Your task to perform on an android device: Clear all items from cart on target. Add "dell xps" to the cart on target, then select checkout. Image 0: 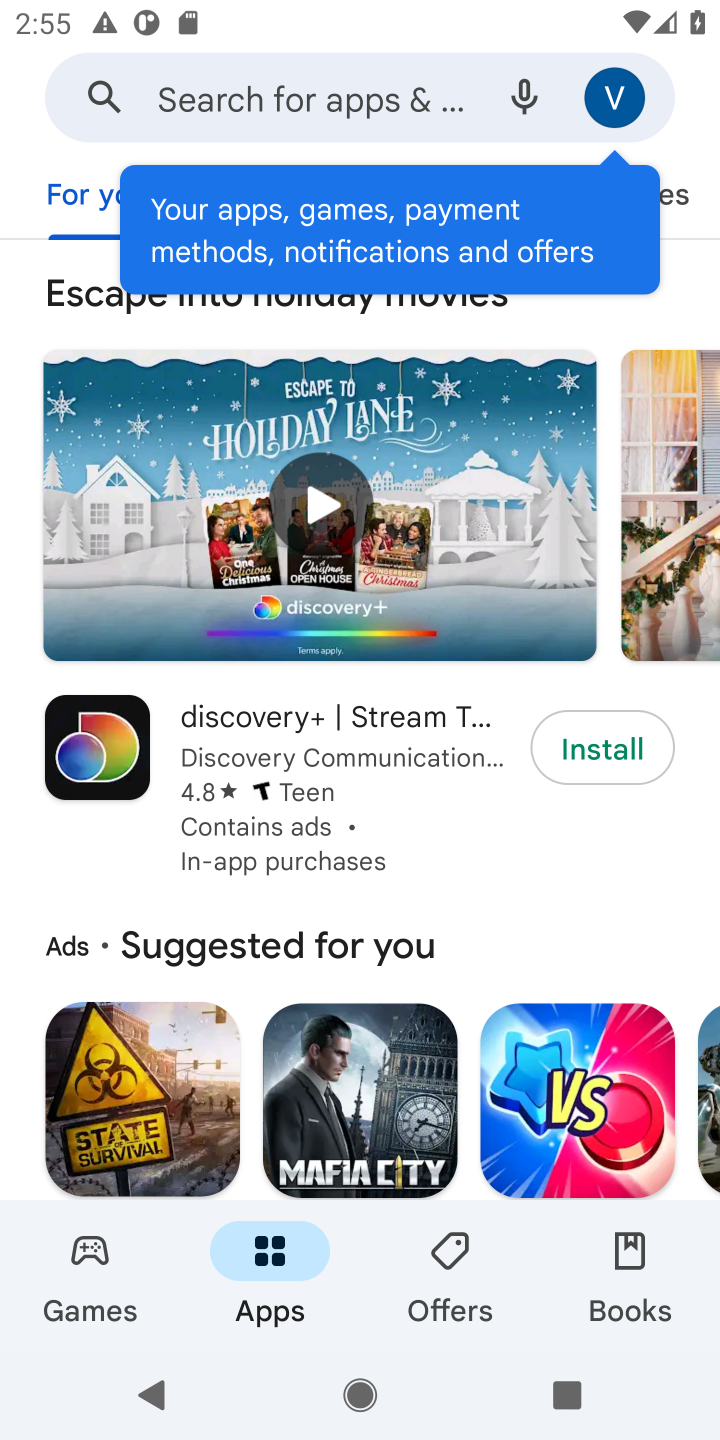
Step 0: press home button
Your task to perform on an android device: Clear all items from cart on target. Add "dell xps" to the cart on target, then select checkout. Image 1: 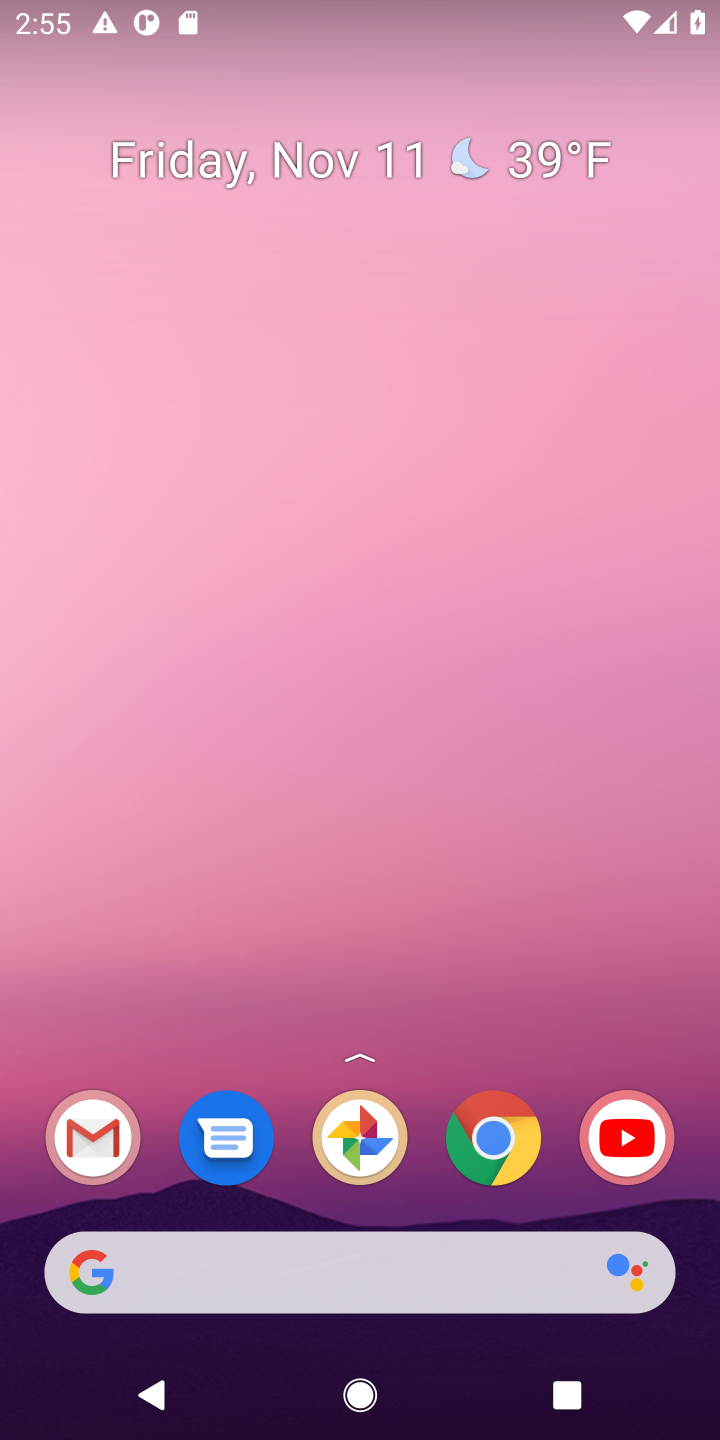
Step 1: click (500, 1146)
Your task to perform on an android device: Clear all items from cart on target. Add "dell xps" to the cart on target, then select checkout. Image 2: 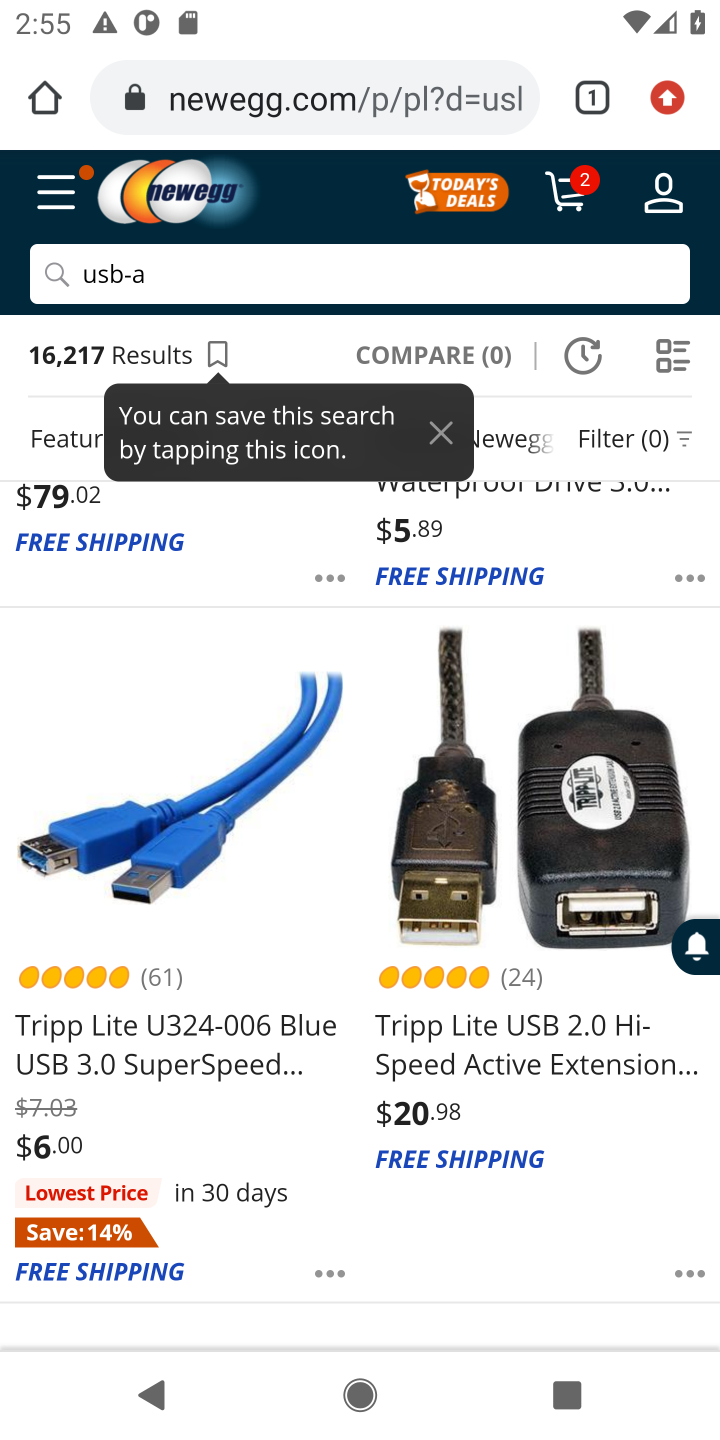
Step 2: click (345, 102)
Your task to perform on an android device: Clear all items from cart on target. Add "dell xps" to the cart on target, then select checkout. Image 3: 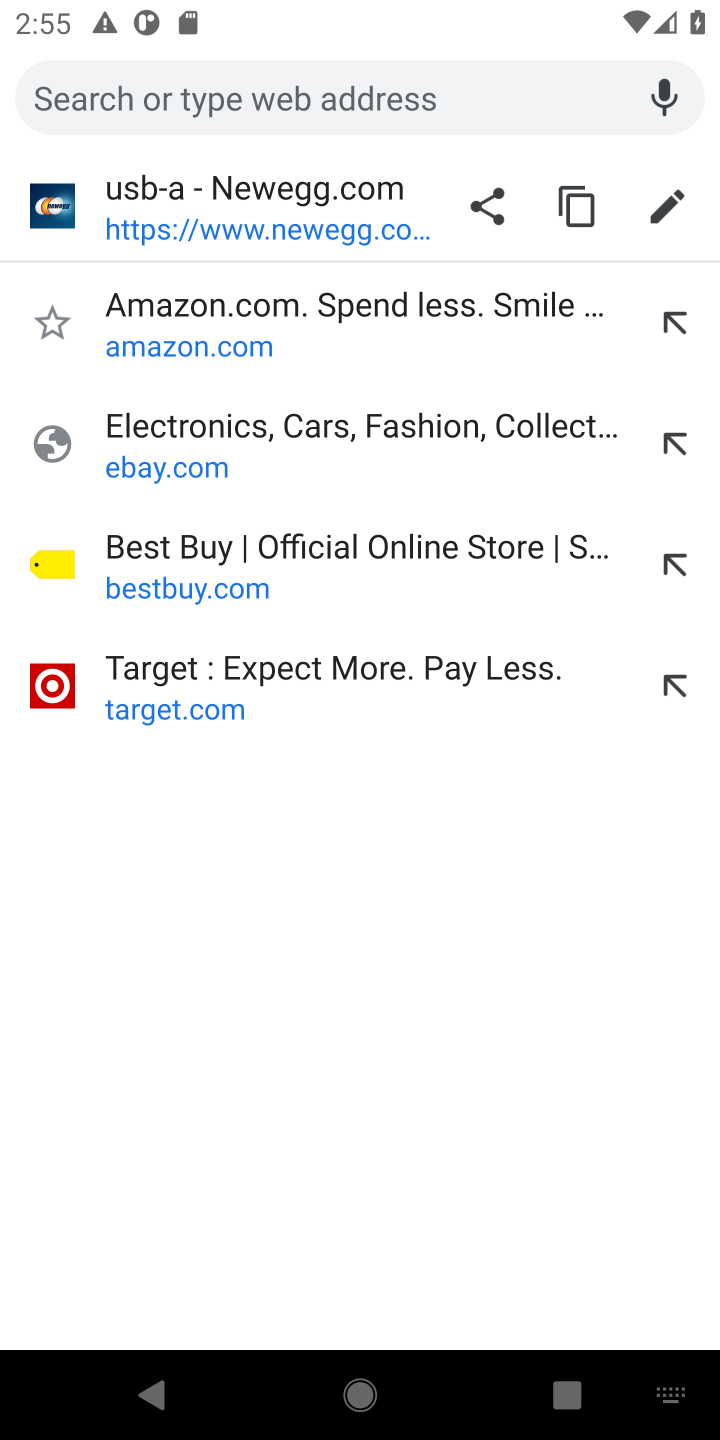
Step 3: click (319, 658)
Your task to perform on an android device: Clear all items from cart on target. Add "dell xps" to the cart on target, then select checkout. Image 4: 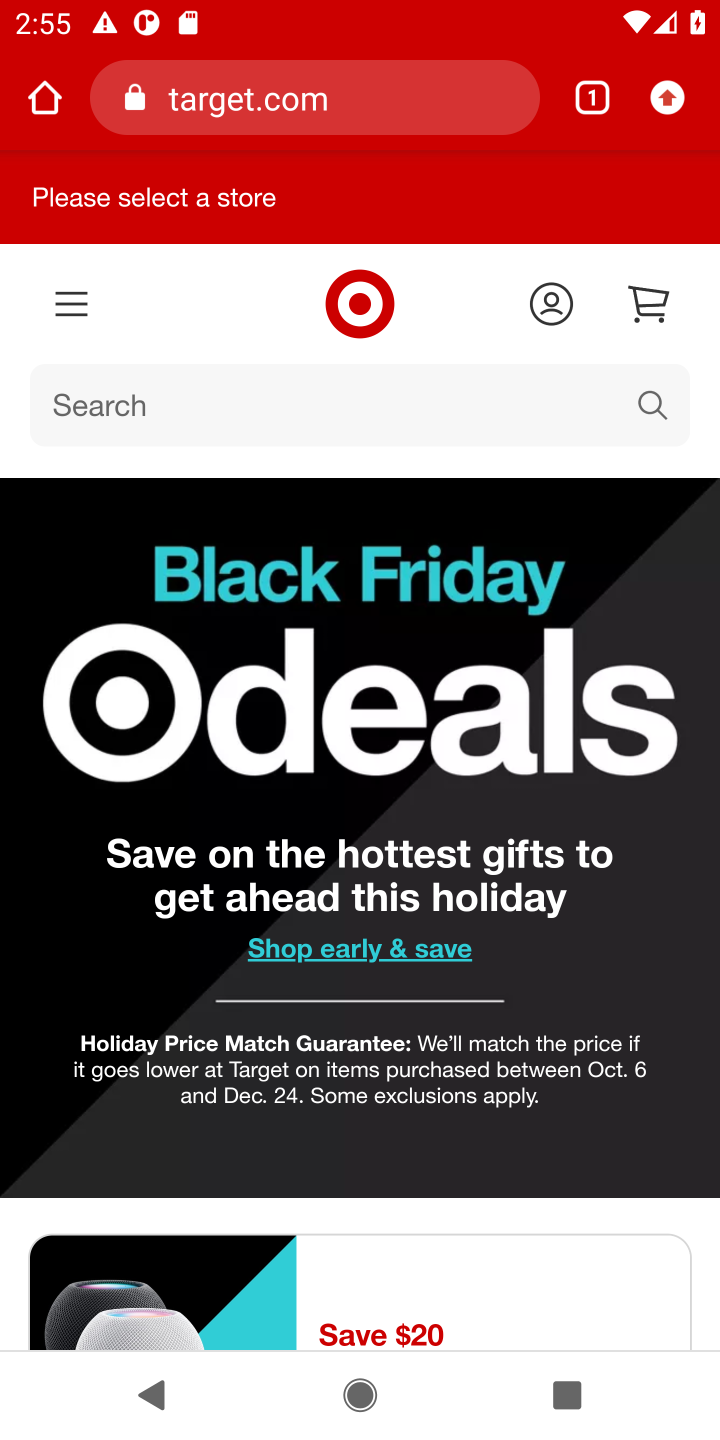
Step 4: click (653, 296)
Your task to perform on an android device: Clear all items from cart on target. Add "dell xps" to the cart on target, then select checkout. Image 5: 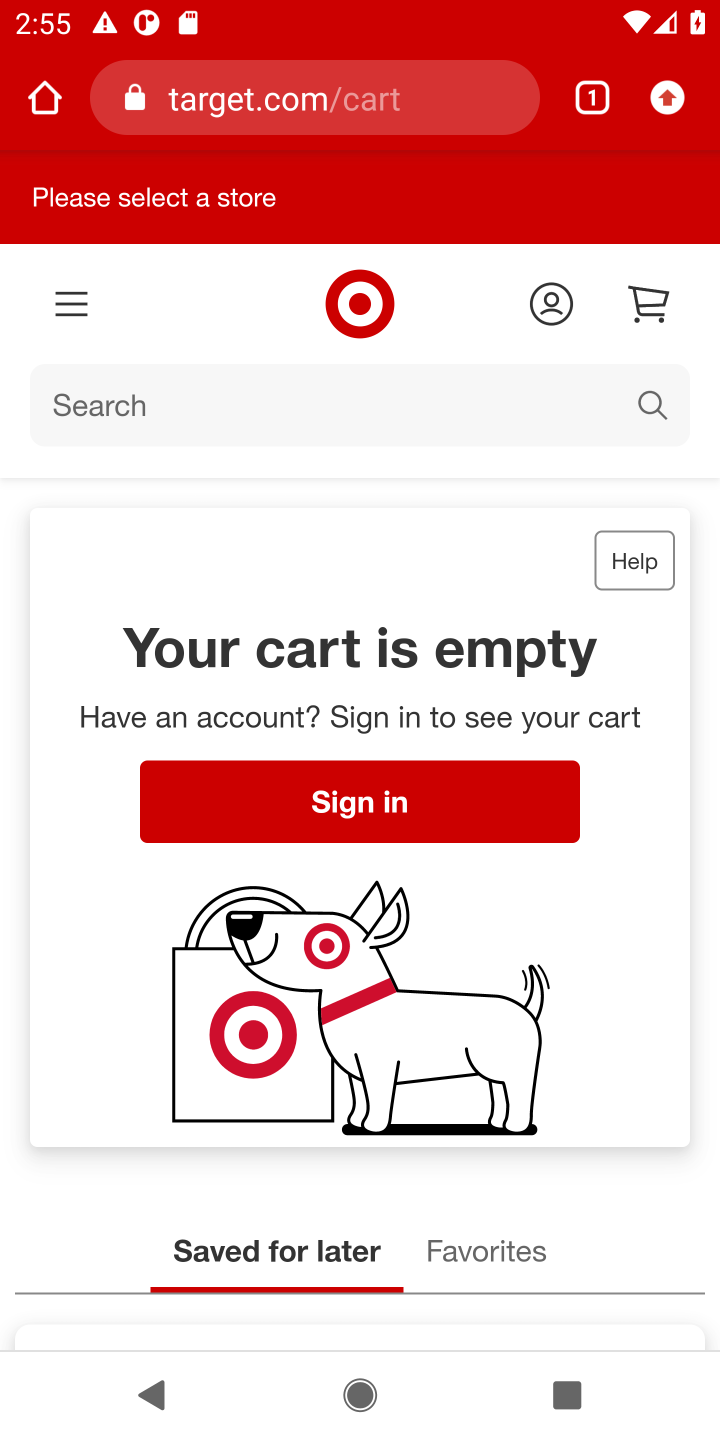
Step 5: click (633, 413)
Your task to perform on an android device: Clear all items from cart on target. Add "dell xps" to the cart on target, then select checkout. Image 6: 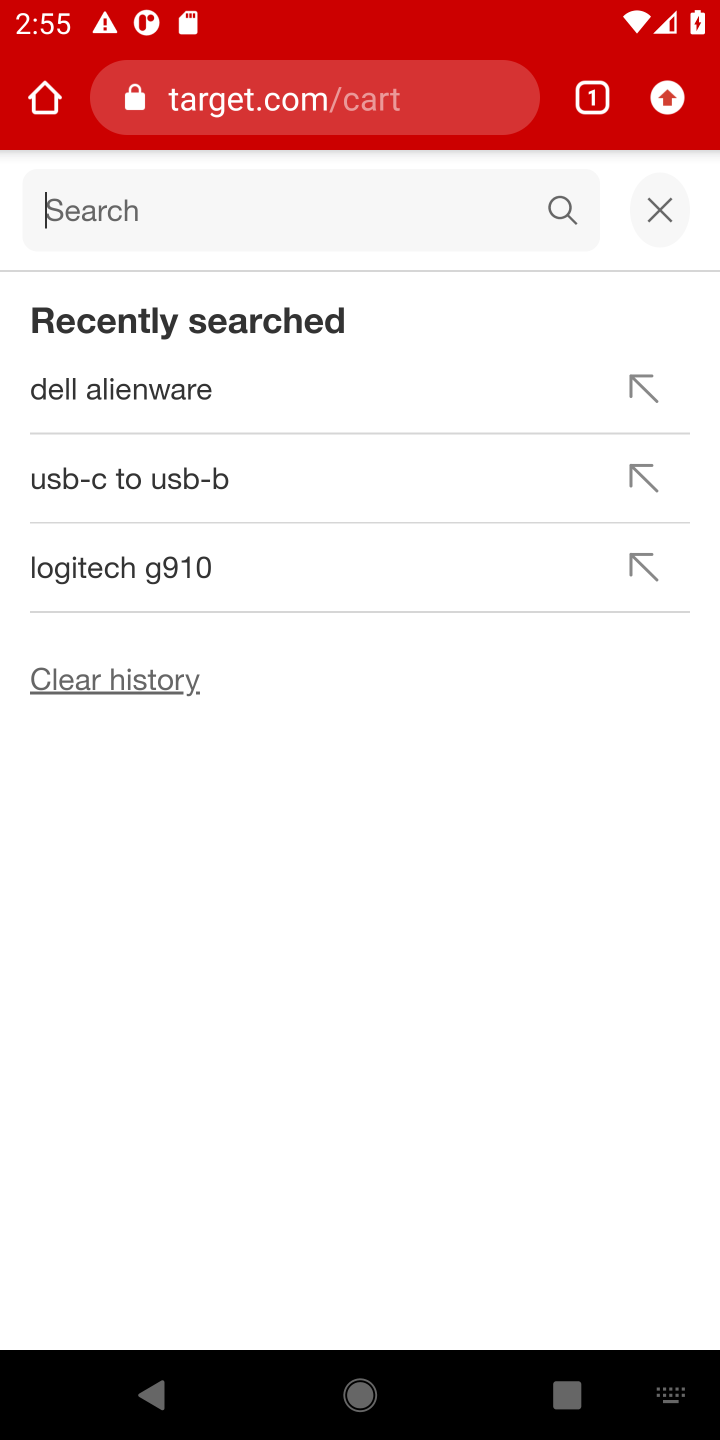
Step 6: type "dell xps"
Your task to perform on an android device: Clear all items from cart on target. Add "dell xps" to the cart on target, then select checkout. Image 7: 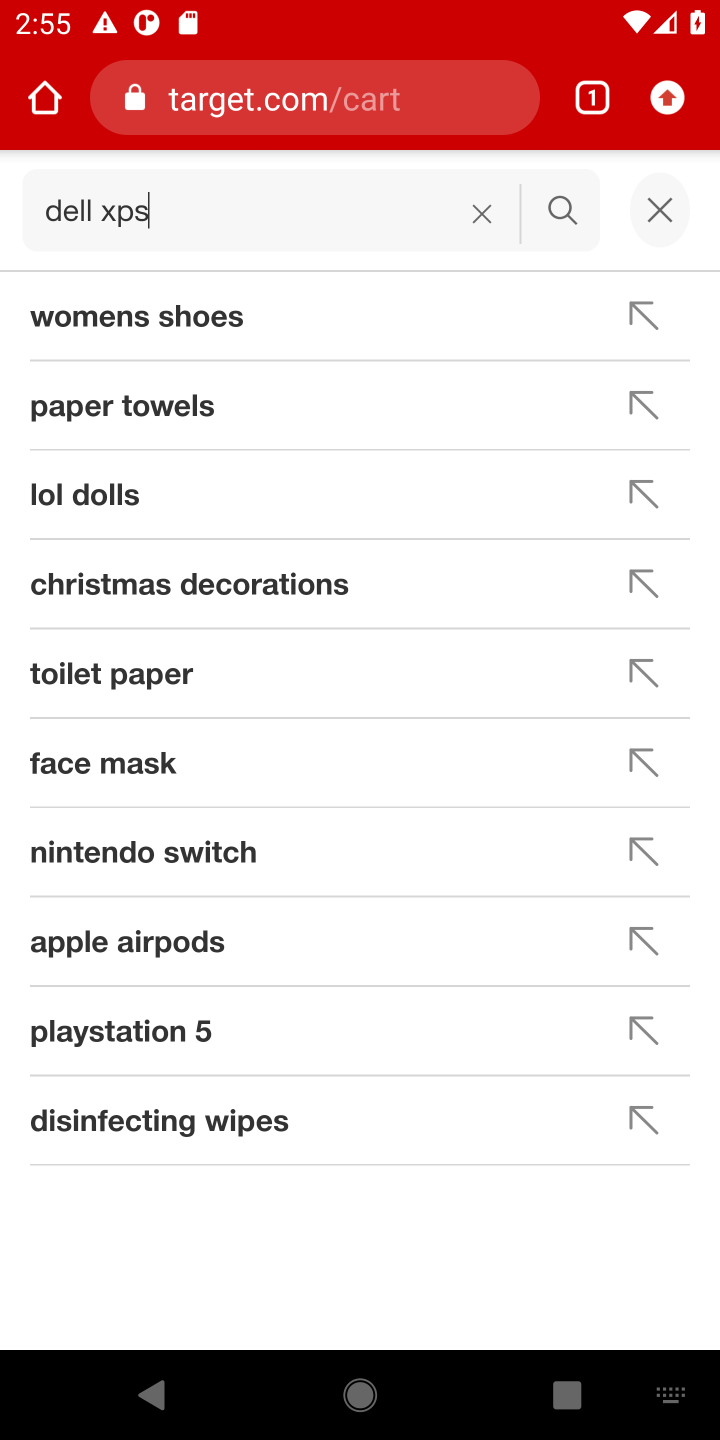
Step 7: press enter
Your task to perform on an android device: Clear all items from cart on target. Add "dell xps" to the cart on target, then select checkout. Image 8: 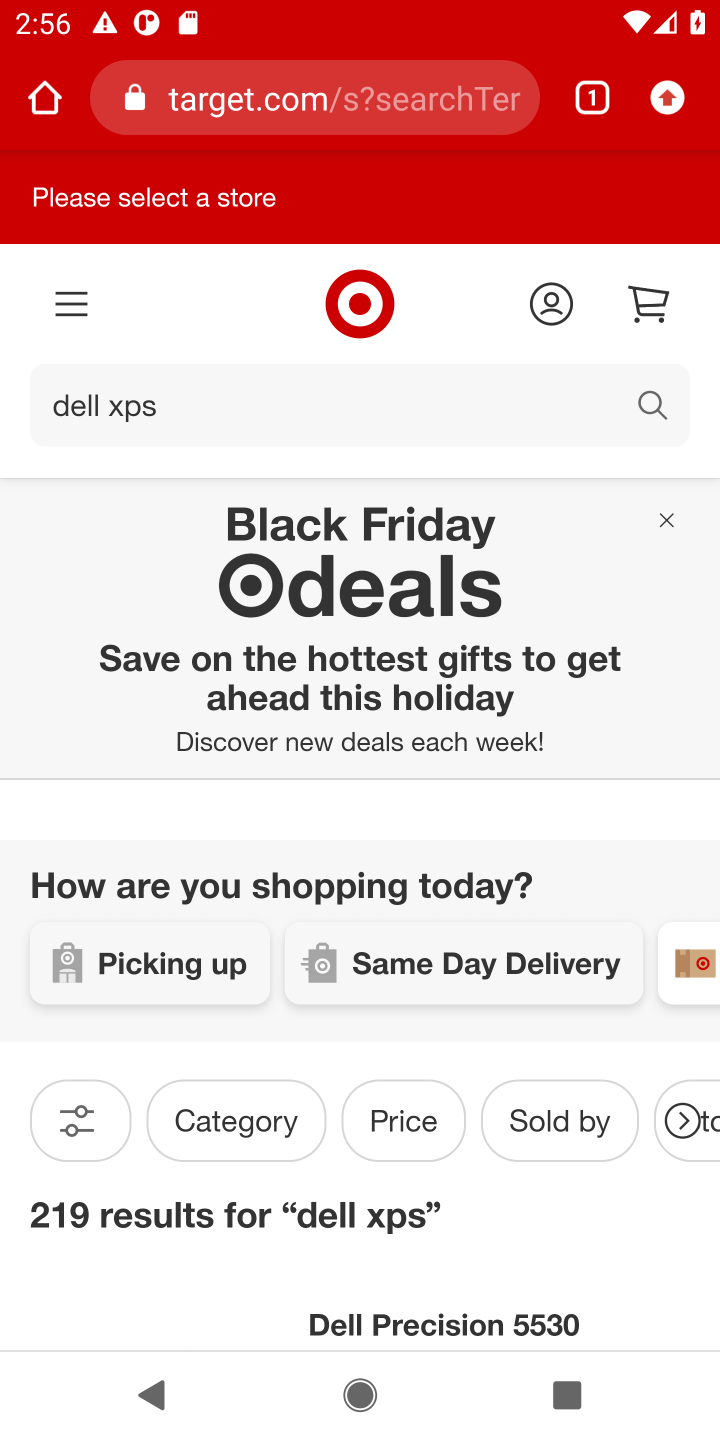
Step 8: click (640, 301)
Your task to perform on an android device: Clear all items from cart on target. Add "dell xps" to the cart on target, then select checkout. Image 9: 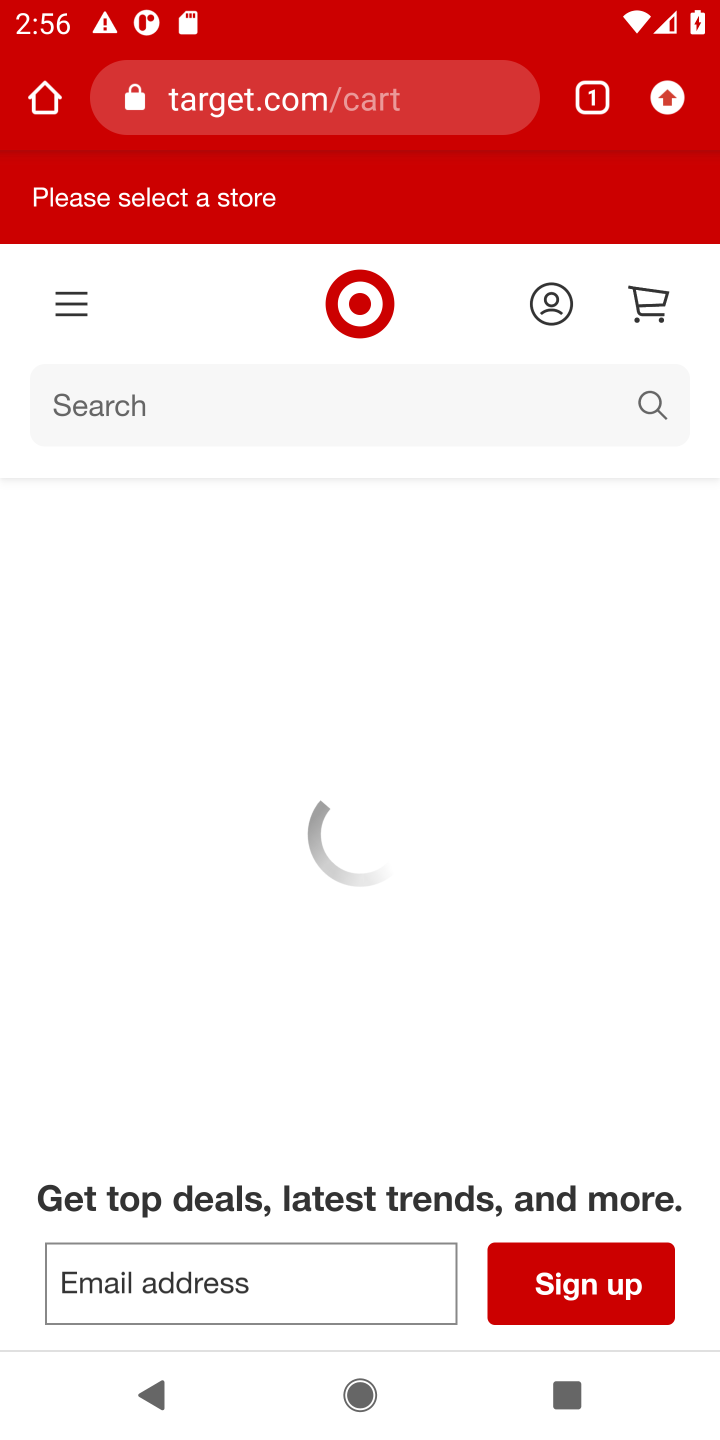
Step 9: click (646, 396)
Your task to perform on an android device: Clear all items from cart on target. Add "dell xps" to the cart on target, then select checkout. Image 10: 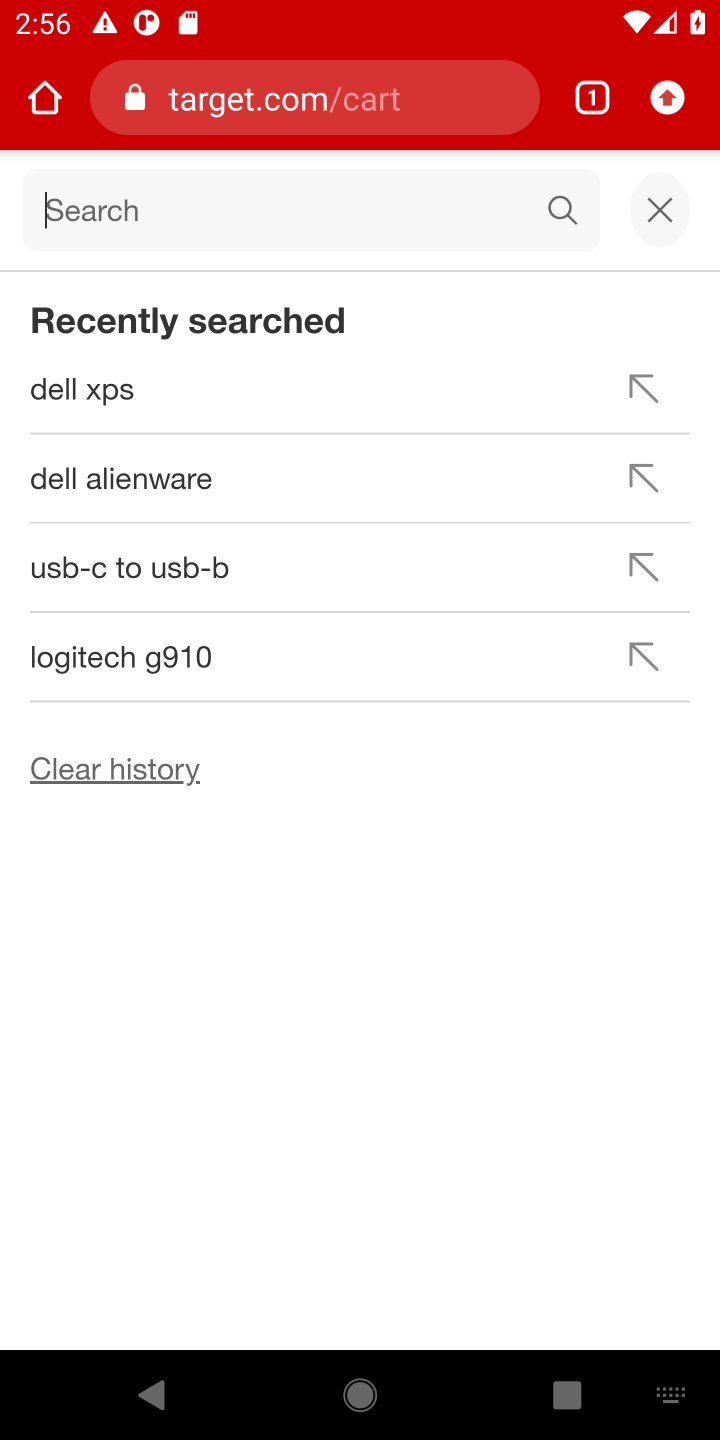
Step 10: click (89, 393)
Your task to perform on an android device: Clear all items from cart on target. Add "dell xps" to the cart on target, then select checkout. Image 11: 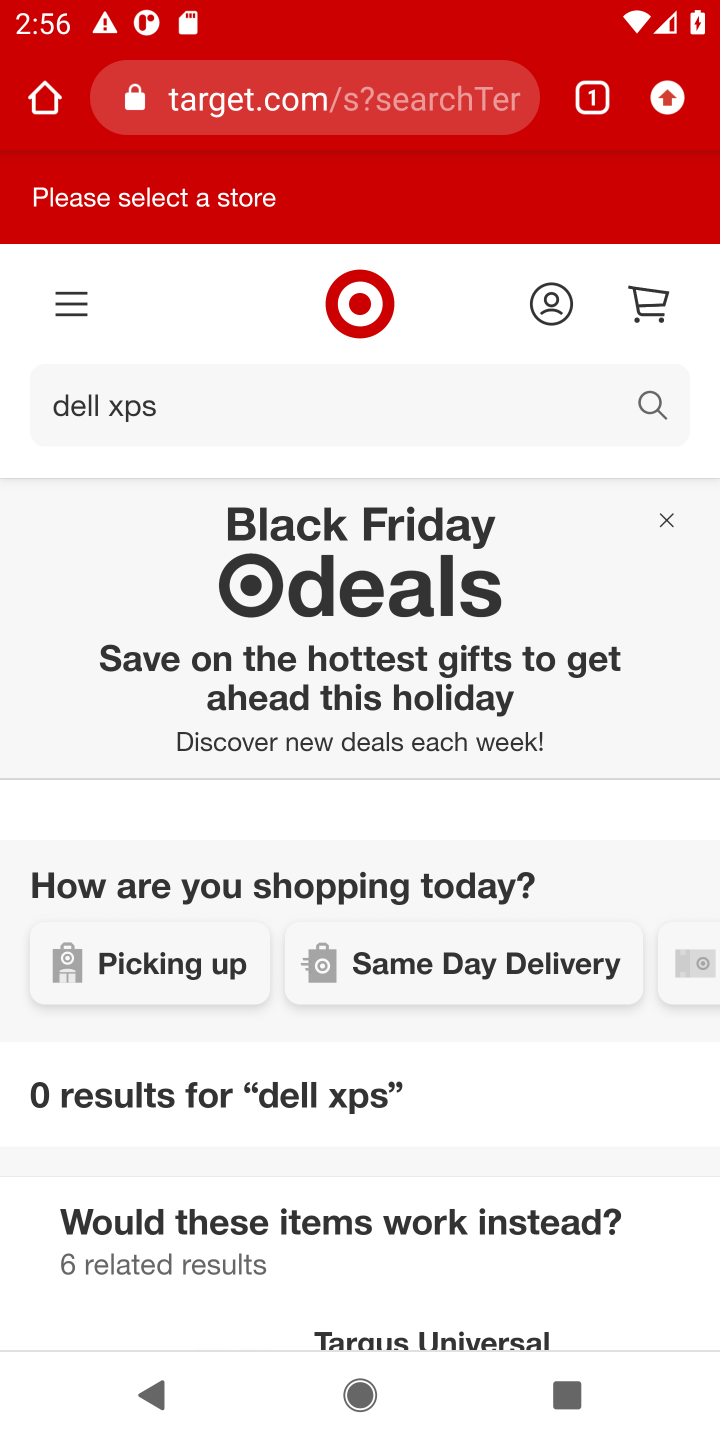
Step 11: task complete